Your task to perform on an android device: Show me the alarms in the clock app Image 0: 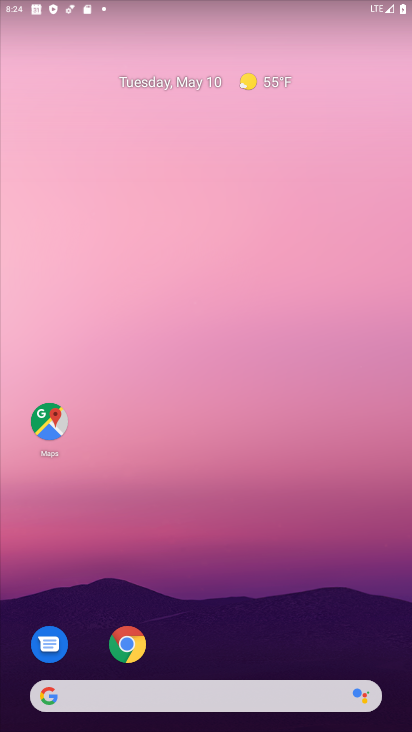
Step 0: drag from (240, 610) to (306, 125)
Your task to perform on an android device: Show me the alarms in the clock app Image 1: 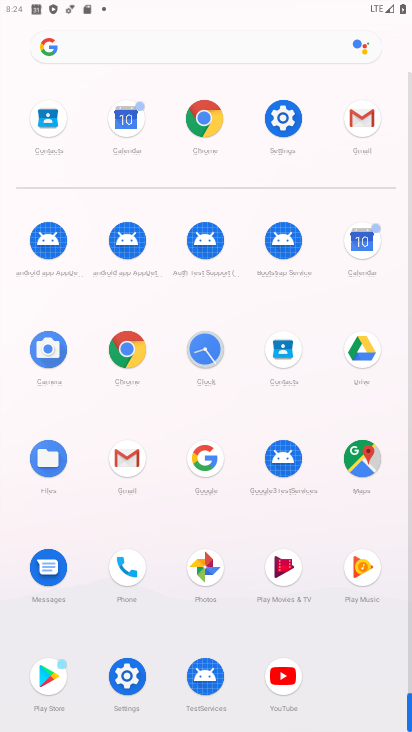
Step 1: click (205, 350)
Your task to perform on an android device: Show me the alarms in the clock app Image 2: 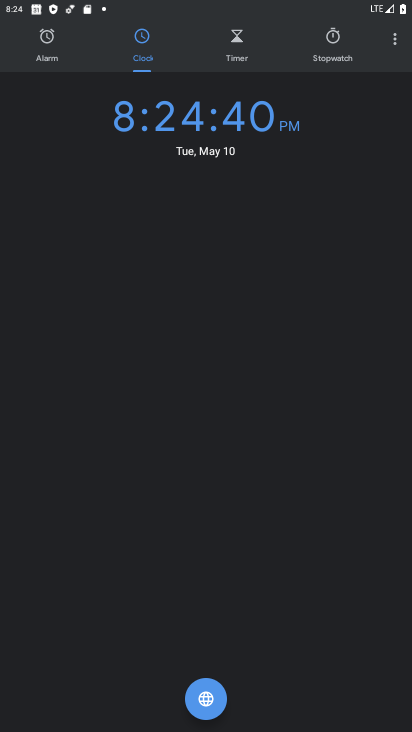
Step 2: click (46, 61)
Your task to perform on an android device: Show me the alarms in the clock app Image 3: 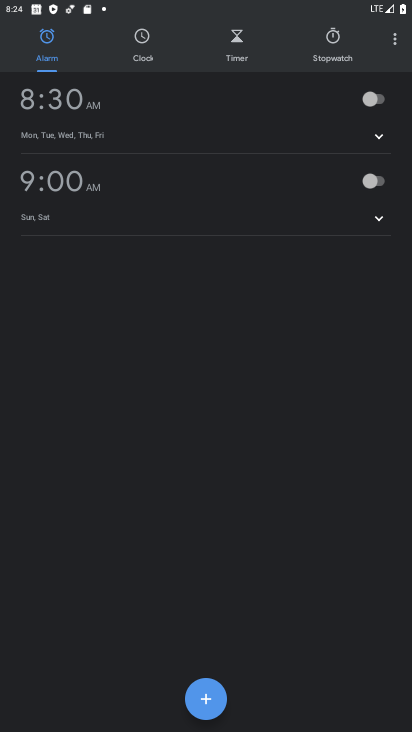
Step 3: task complete